Your task to perform on an android device: toggle airplane mode Image 0: 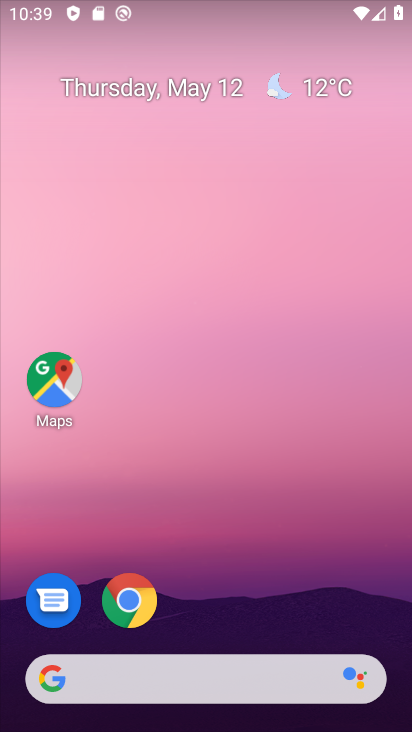
Step 0: drag from (327, 6) to (311, 476)
Your task to perform on an android device: toggle airplane mode Image 1: 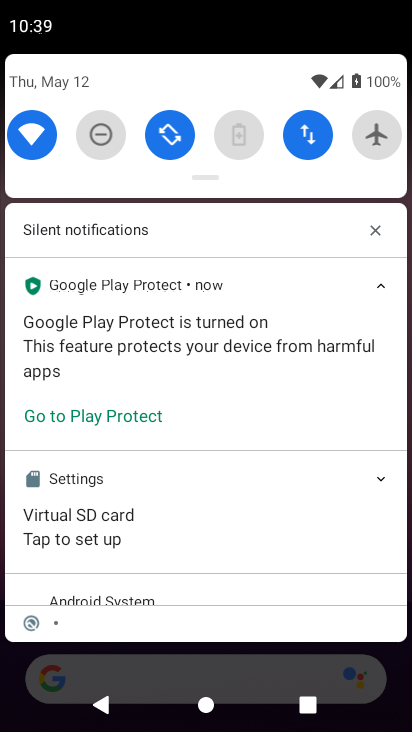
Step 1: click (374, 124)
Your task to perform on an android device: toggle airplane mode Image 2: 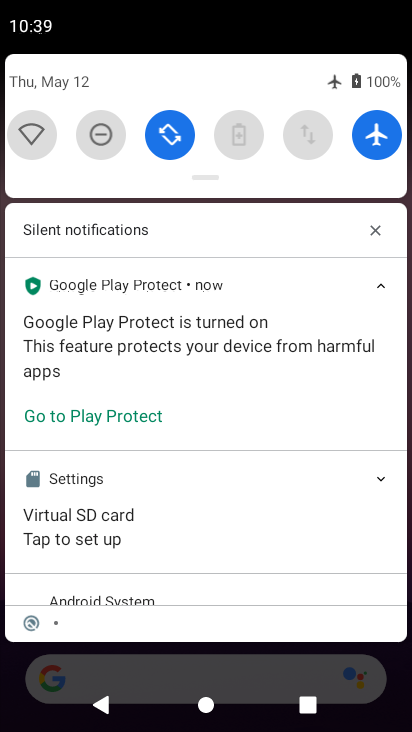
Step 2: task complete